Your task to perform on an android device: open app "Google Maps" Image 0: 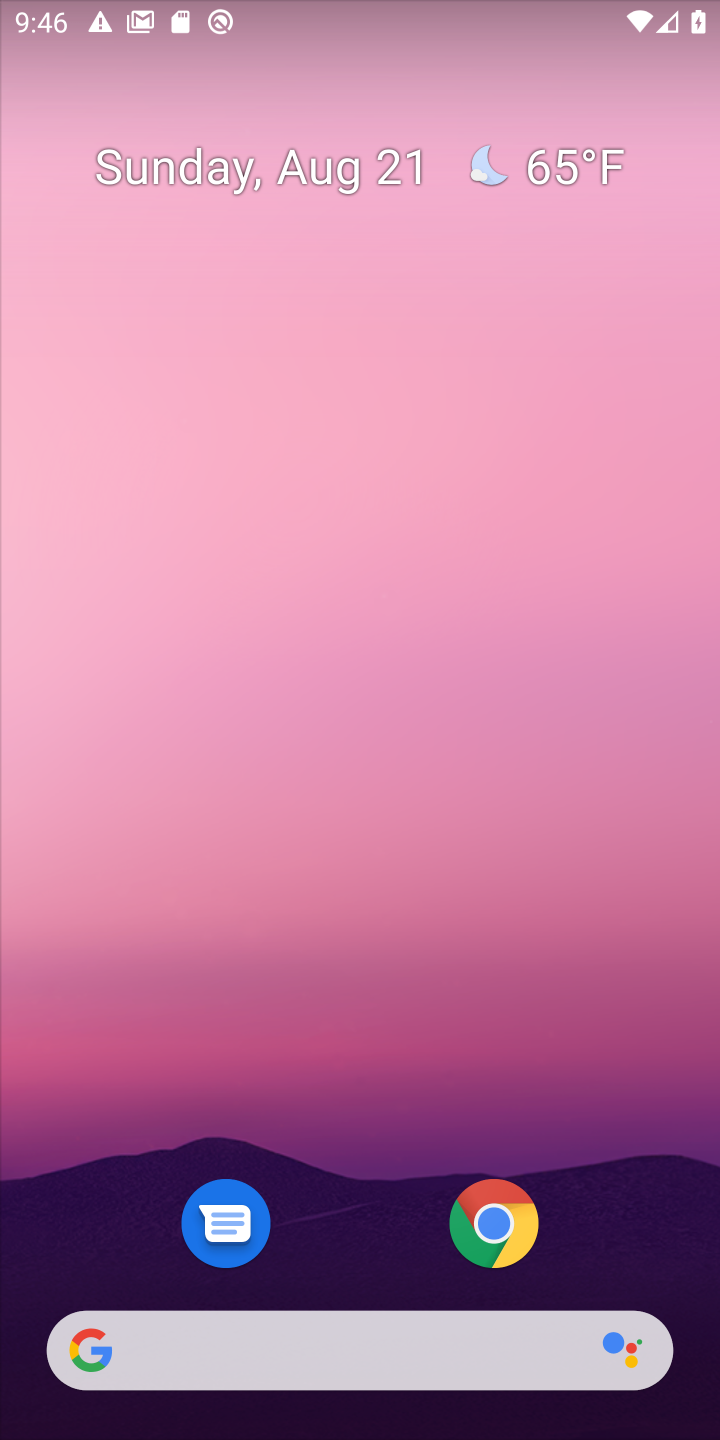
Step 0: press home button
Your task to perform on an android device: open app "Google Maps" Image 1: 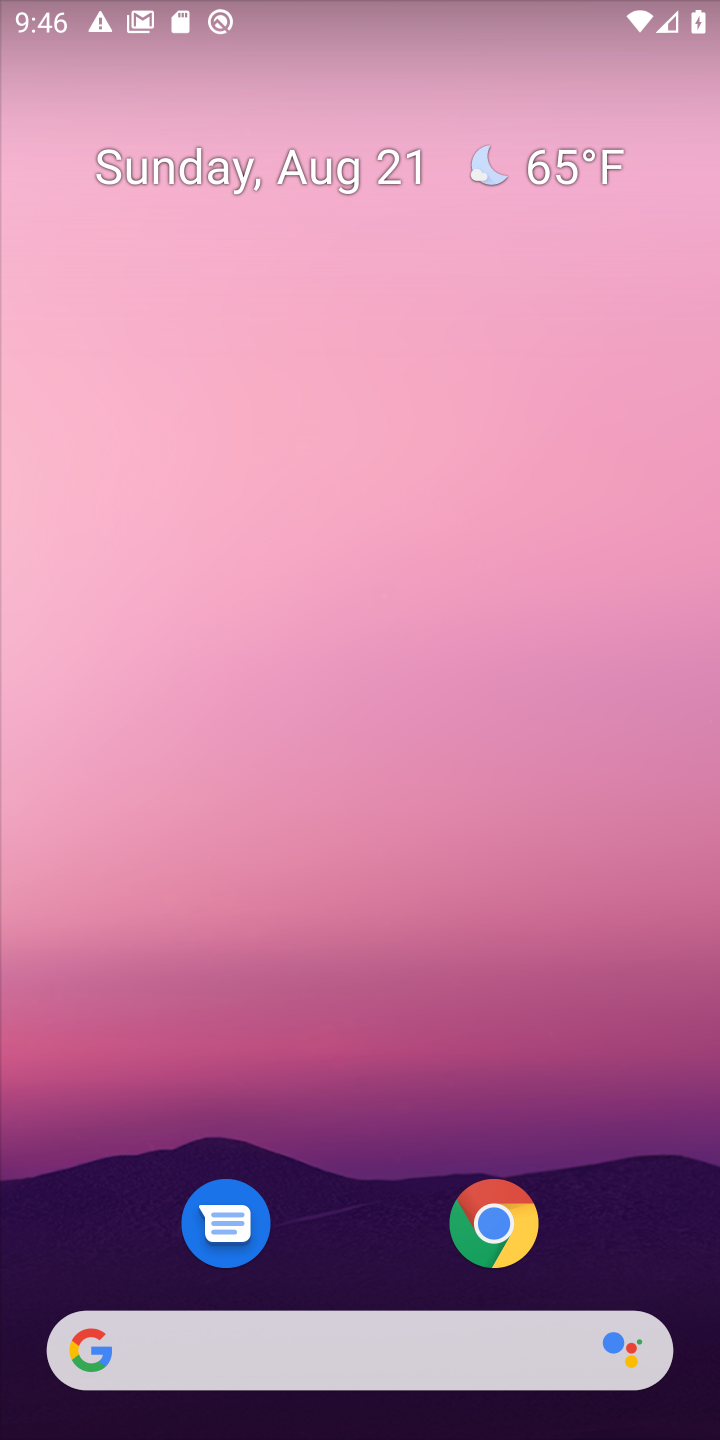
Step 1: drag from (651, 1231) to (690, 191)
Your task to perform on an android device: open app "Google Maps" Image 2: 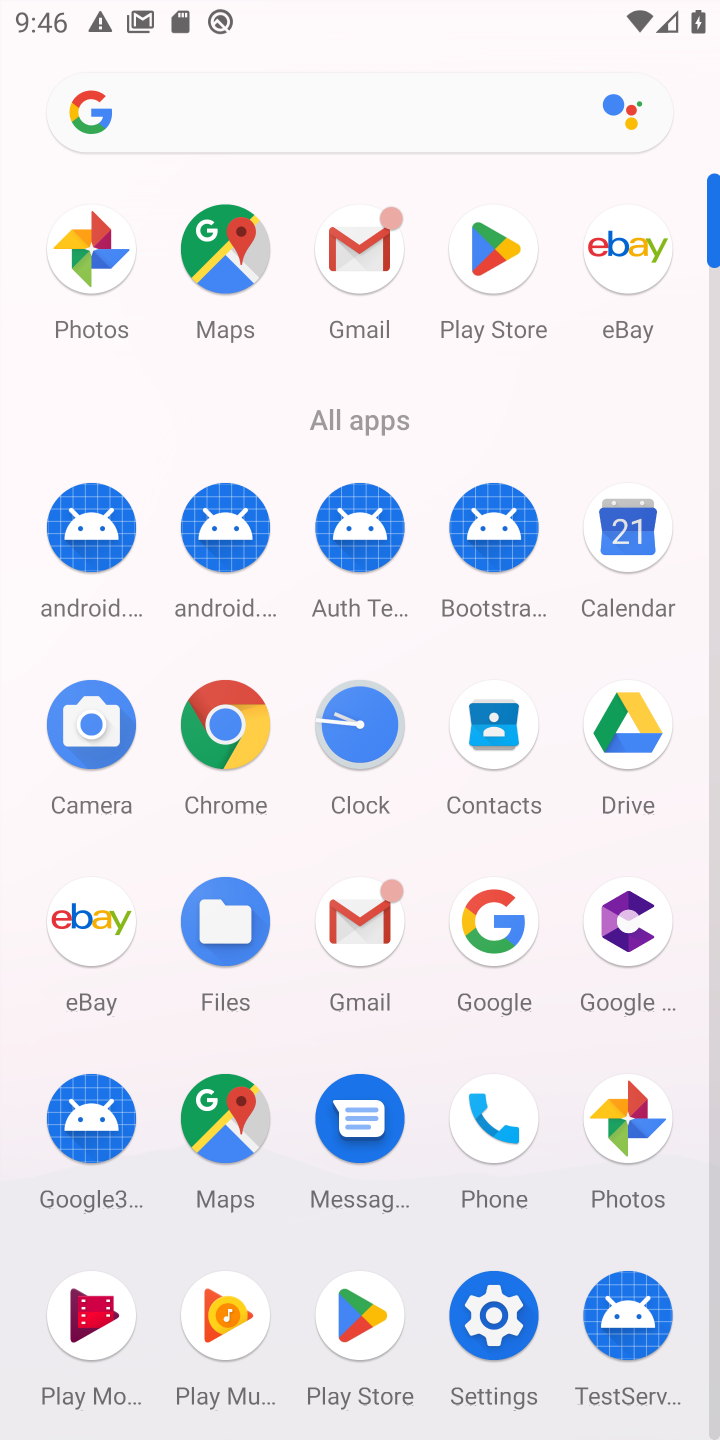
Step 2: click (488, 255)
Your task to perform on an android device: open app "Google Maps" Image 3: 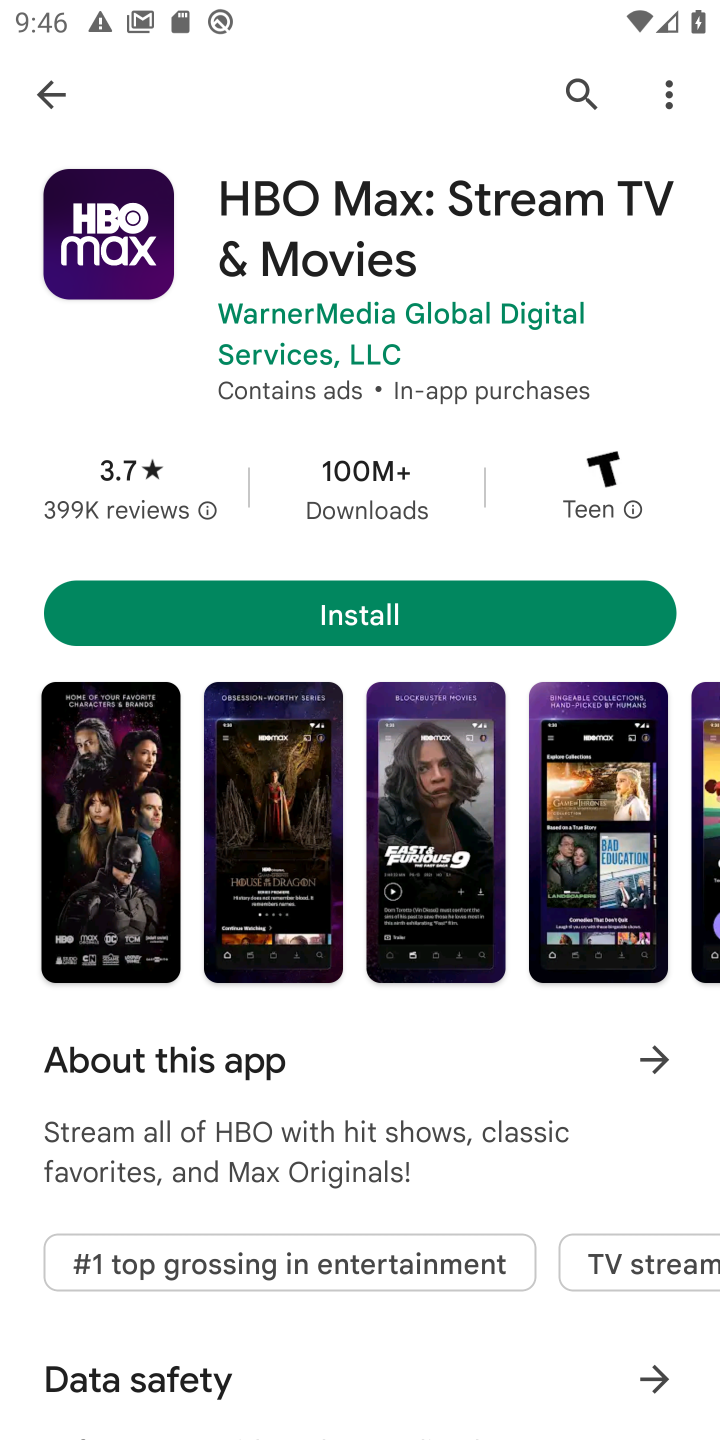
Step 3: press back button
Your task to perform on an android device: open app "Google Maps" Image 4: 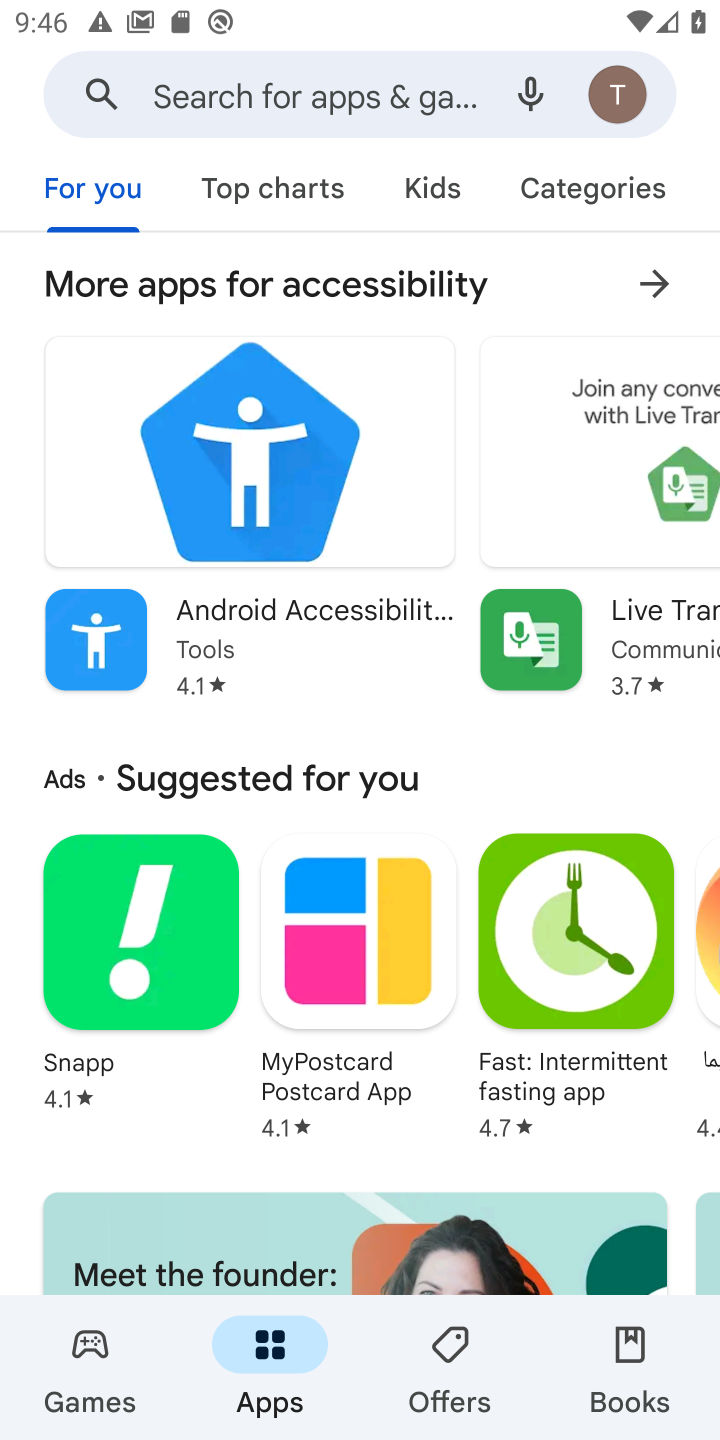
Step 4: click (392, 89)
Your task to perform on an android device: open app "Google Maps" Image 5: 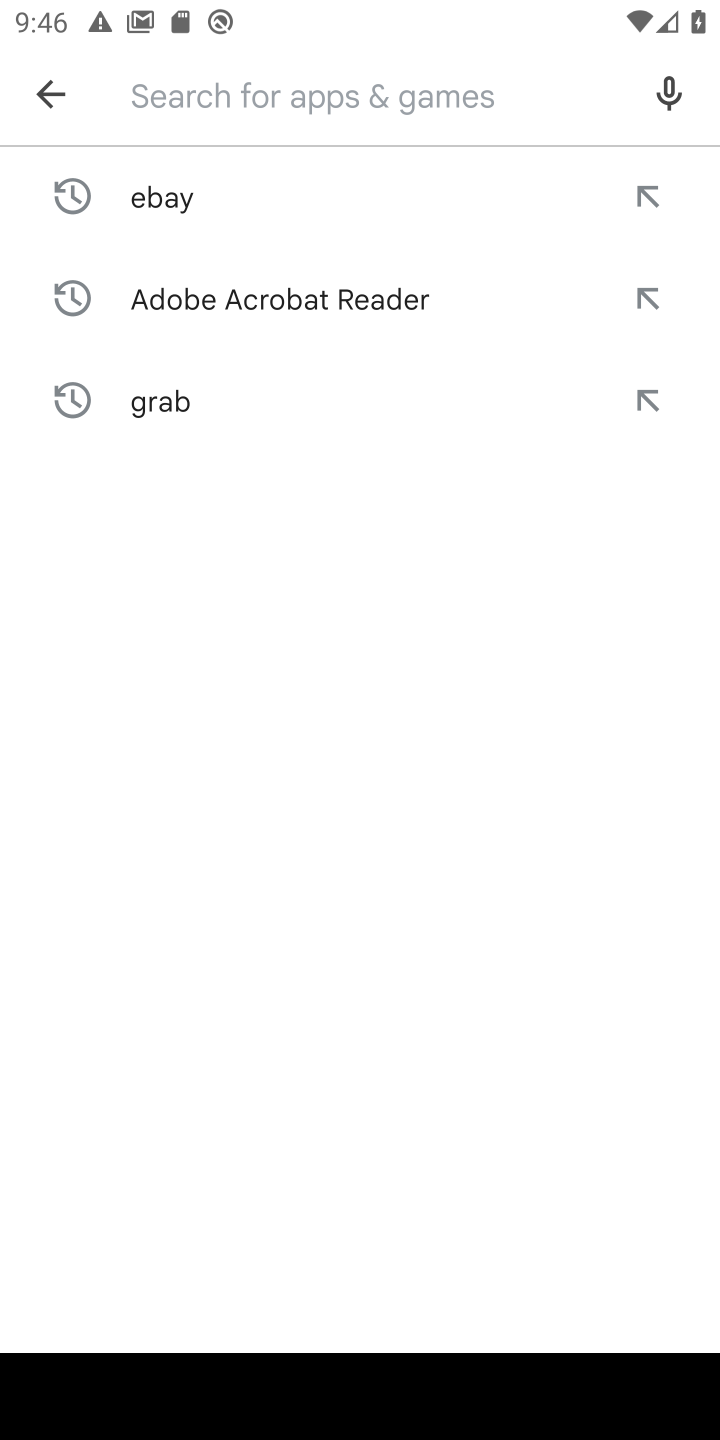
Step 5: press enter
Your task to perform on an android device: open app "Google Maps" Image 6: 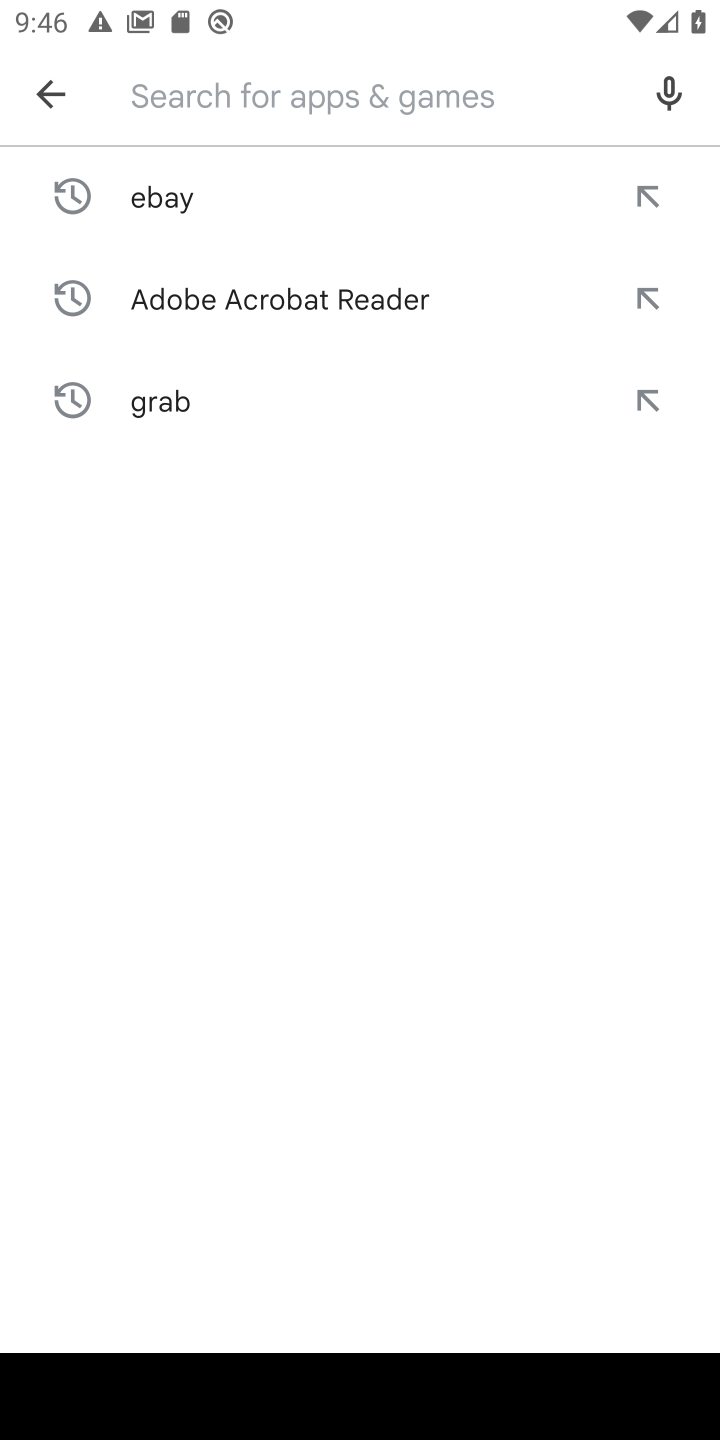
Step 6: type "google maps"
Your task to perform on an android device: open app "Google Maps" Image 7: 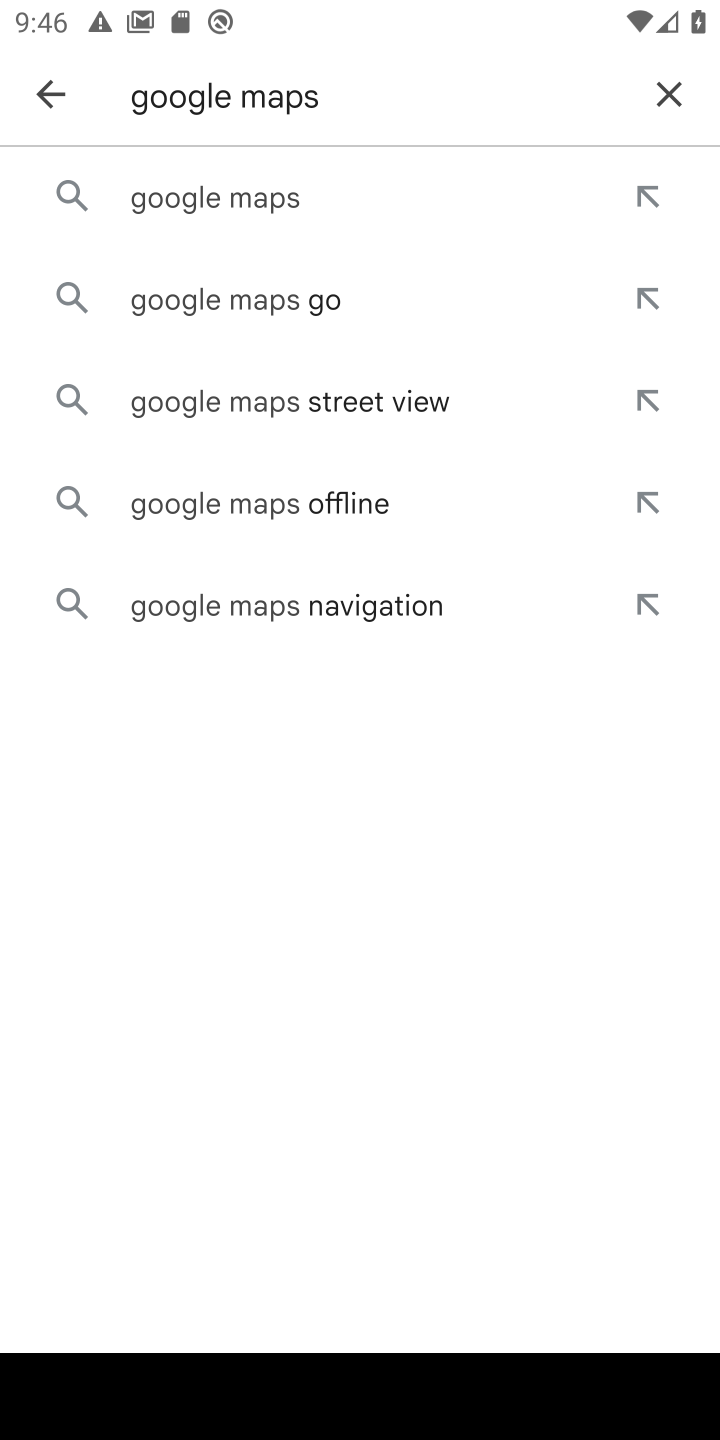
Step 7: click (276, 196)
Your task to perform on an android device: open app "Google Maps" Image 8: 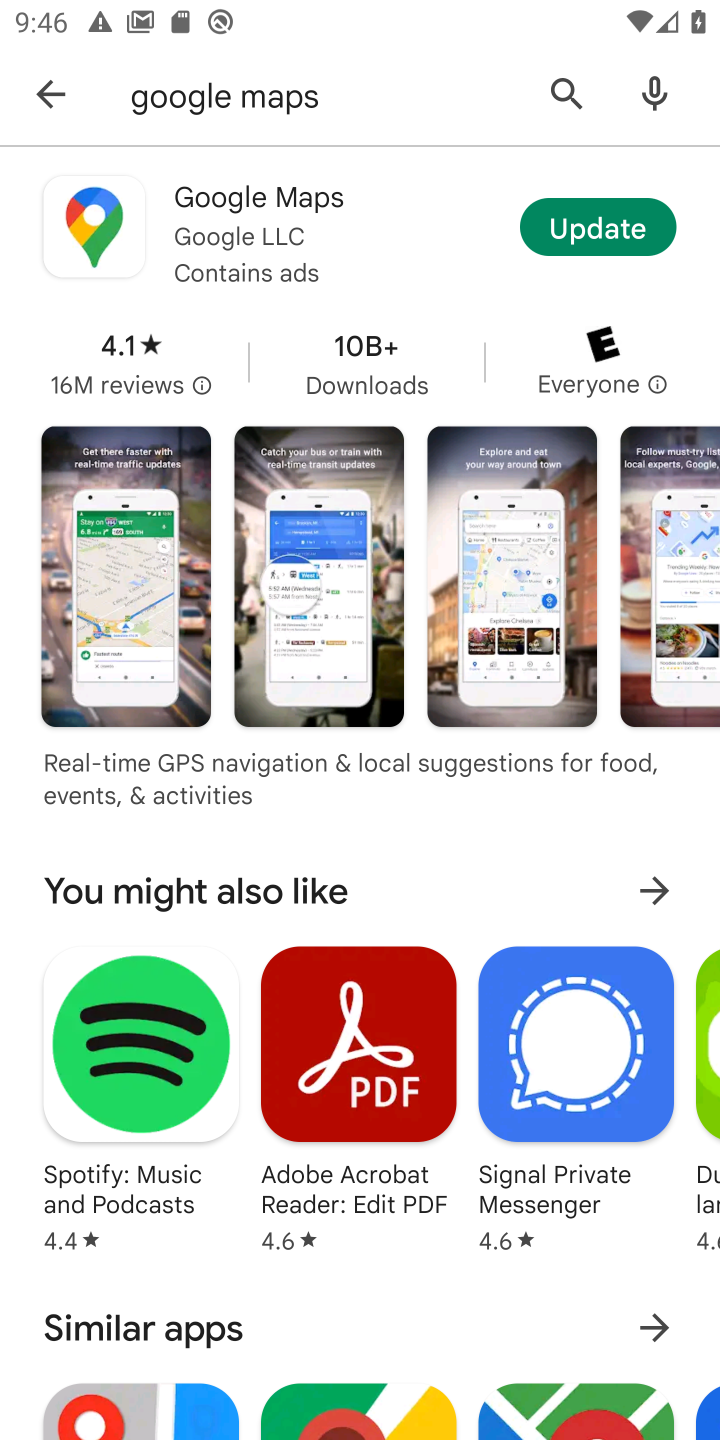
Step 8: click (621, 234)
Your task to perform on an android device: open app "Google Maps" Image 9: 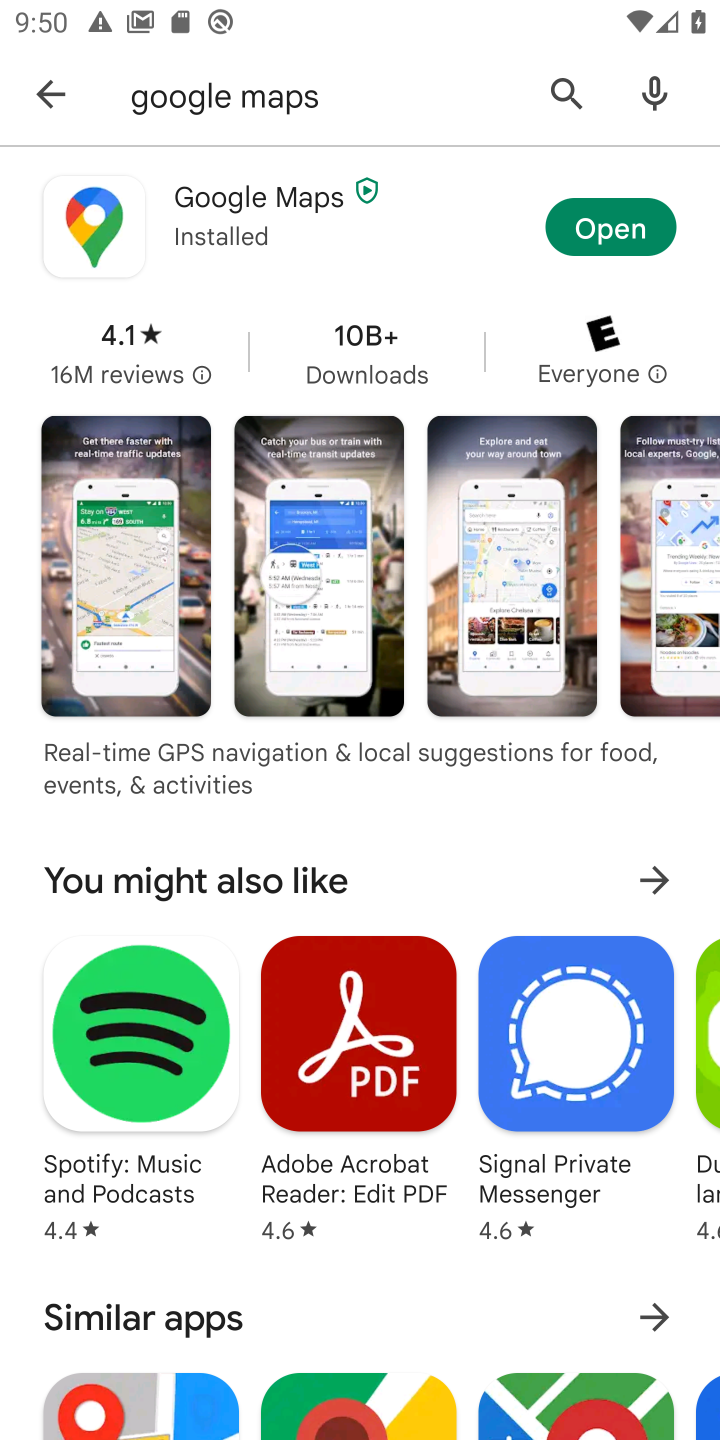
Step 9: click (629, 225)
Your task to perform on an android device: open app "Google Maps" Image 10: 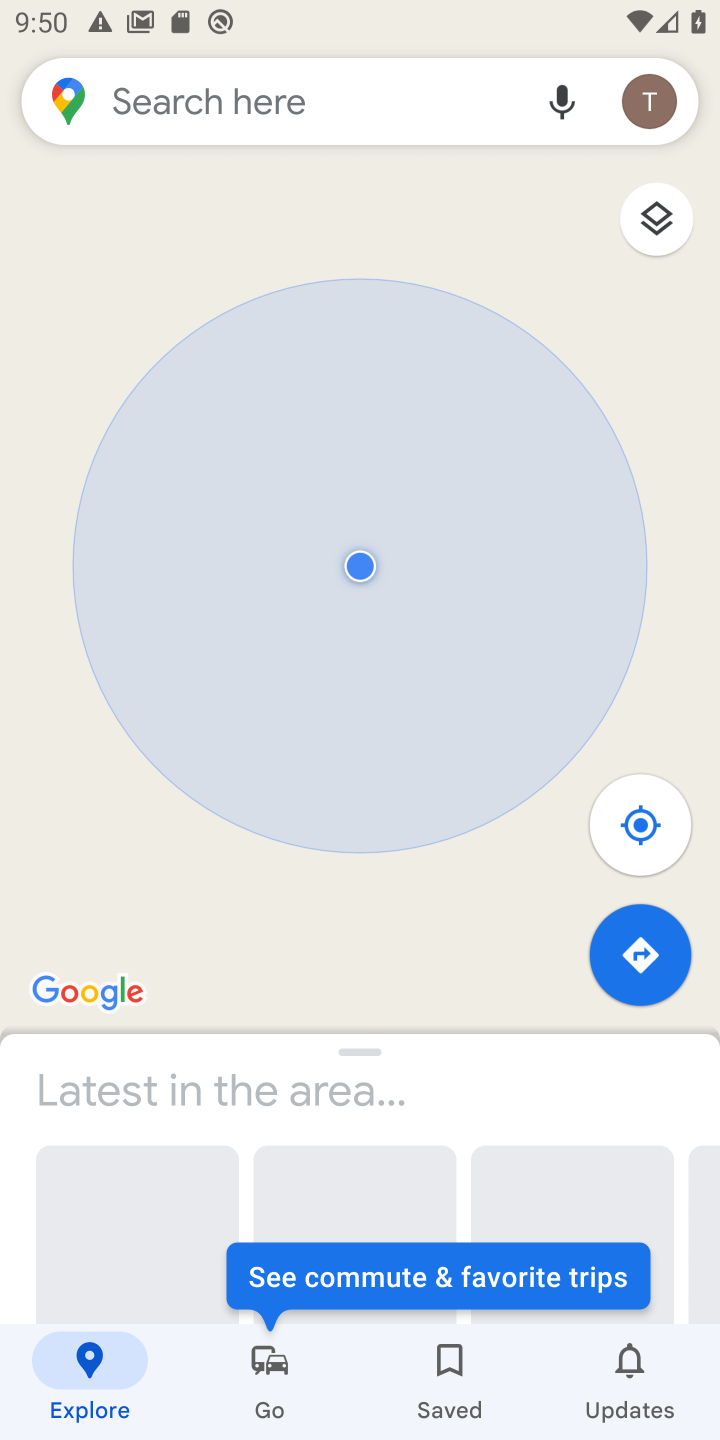
Step 10: task complete